Your task to perform on an android device: check data usage Image 0: 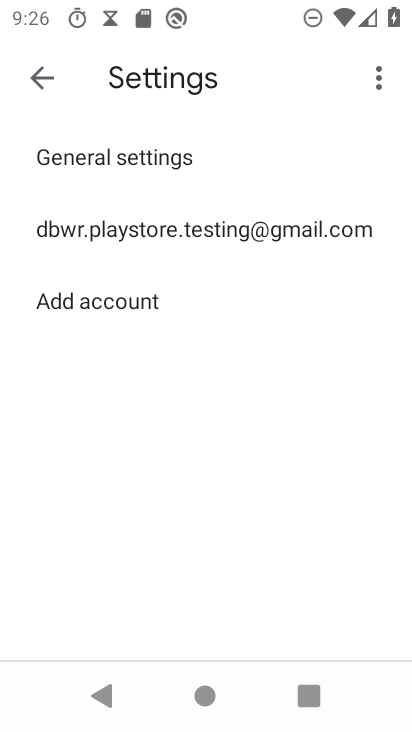
Step 0: press home button
Your task to perform on an android device: check data usage Image 1: 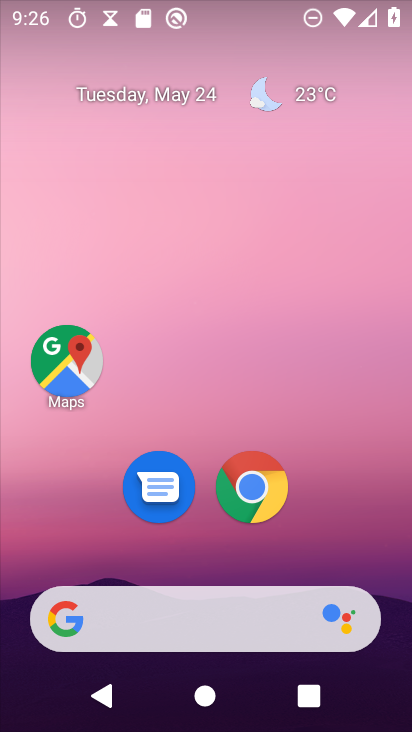
Step 1: drag from (77, 428) to (285, 64)
Your task to perform on an android device: check data usage Image 2: 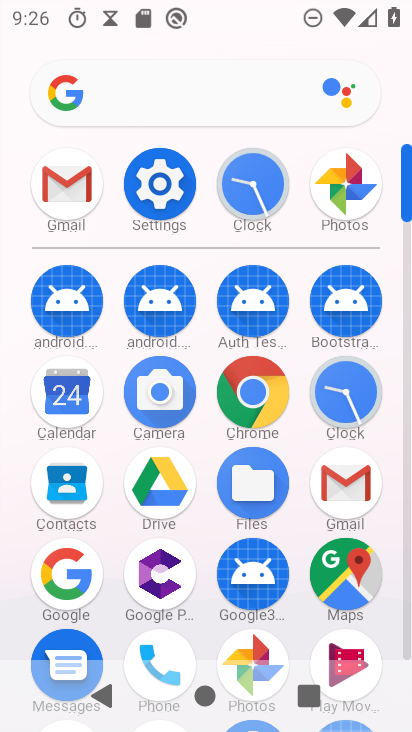
Step 2: click (164, 180)
Your task to perform on an android device: check data usage Image 3: 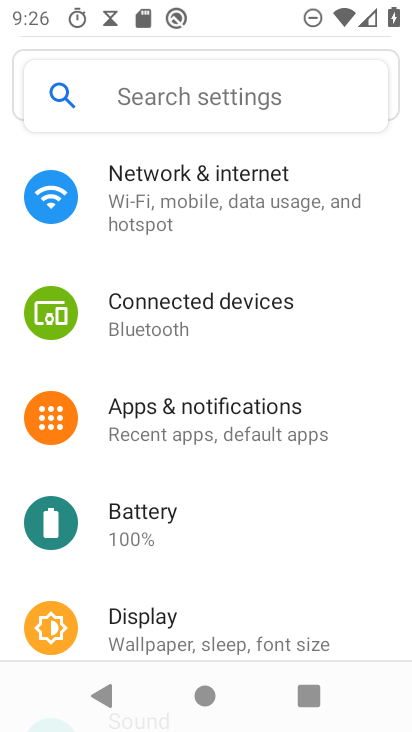
Step 3: click (168, 213)
Your task to perform on an android device: check data usage Image 4: 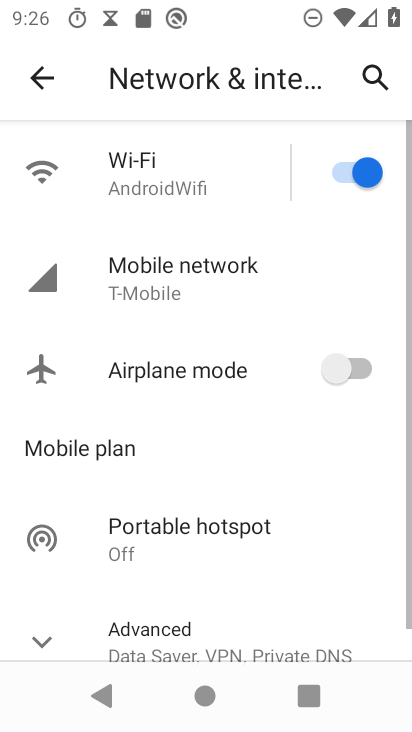
Step 4: click (179, 274)
Your task to perform on an android device: check data usage Image 5: 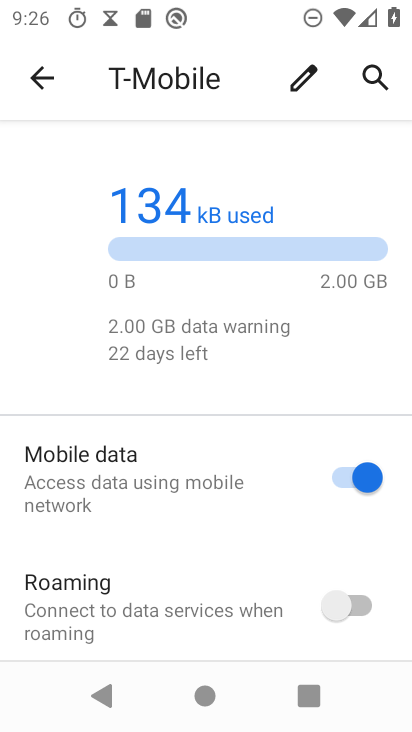
Step 5: task complete